Your task to perform on an android device: see creations saved in the google photos Image 0: 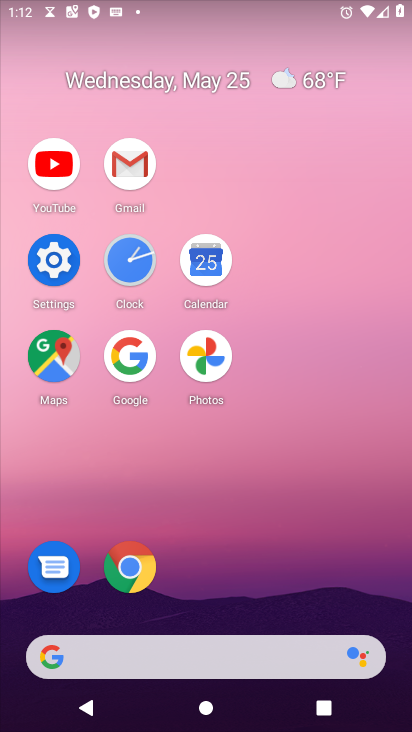
Step 0: click (207, 369)
Your task to perform on an android device: see creations saved in the google photos Image 1: 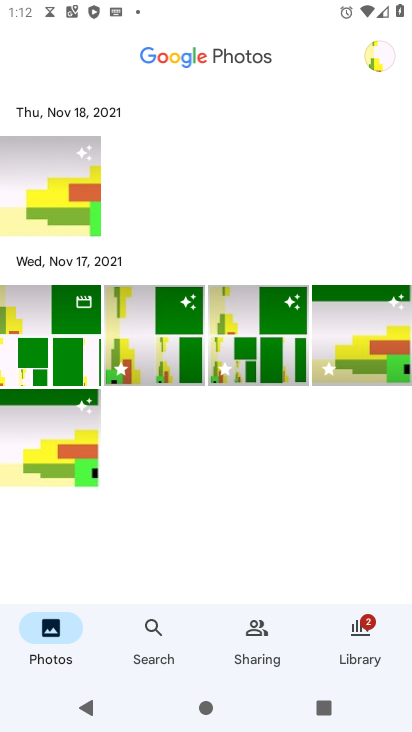
Step 1: click (259, 68)
Your task to perform on an android device: see creations saved in the google photos Image 2: 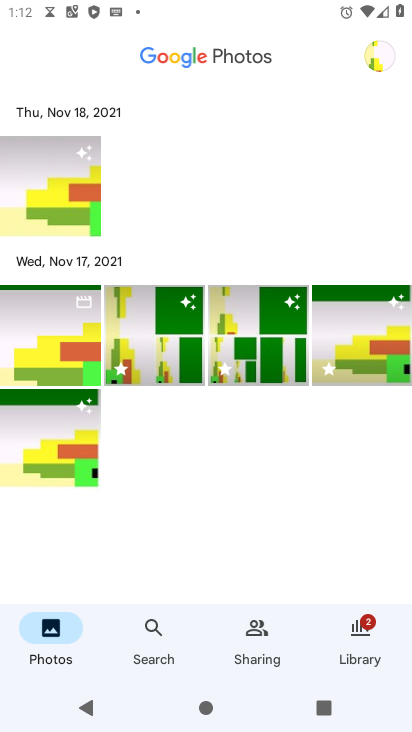
Step 2: click (142, 50)
Your task to perform on an android device: see creations saved in the google photos Image 3: 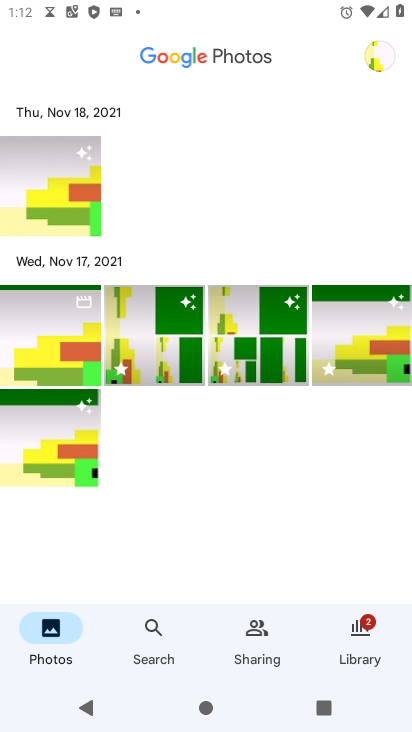
Step 3: click (232, 61)
Your task to perform on an android device: see creations saved in the google photos Image 4: 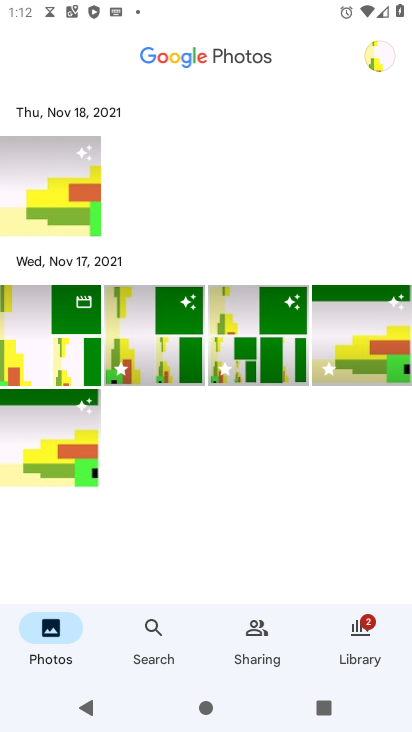
Step 4: click (172, 624)
Your task to perform on an android device: see creations saved in the google photos Image 5: 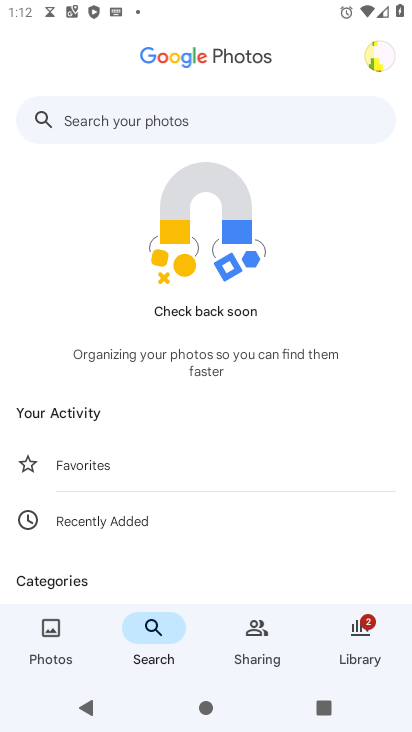
Step 5: click (140, 127)
Your task to perform on an android device: see creations saved in the google photos Image 6: 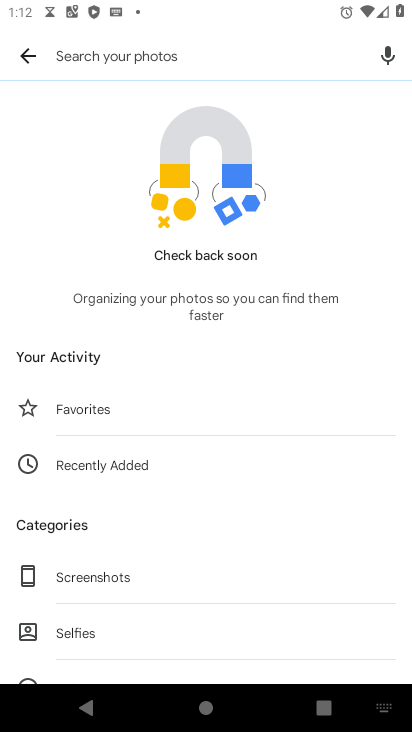
Step 6: drag from (132, 551) to (144, 269)
Your task to perform on an android device: see creations saved in the google photos Image 7: 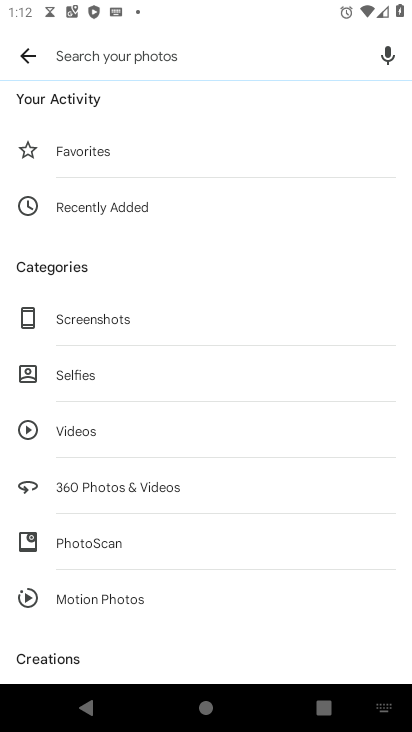
Step 7: drag from (167, 520) to (231, 248)
Your task to perform on an android device: see creations saved in the google photos Image 8: 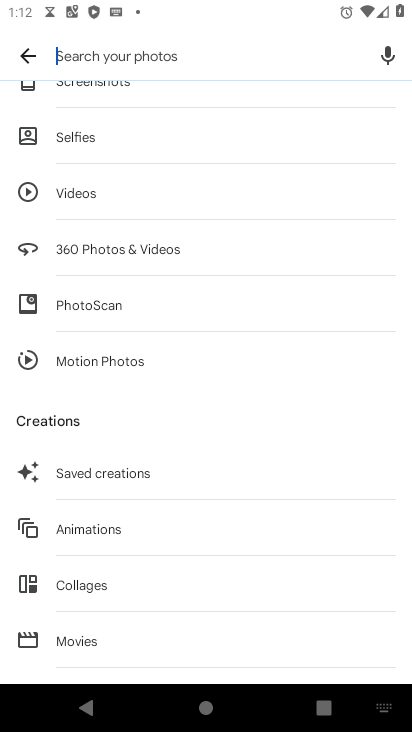
Step 8: drag from (185, 510) to (194, 263)
Your task to perform on an android device: see creations saved in the google photos Image 9: 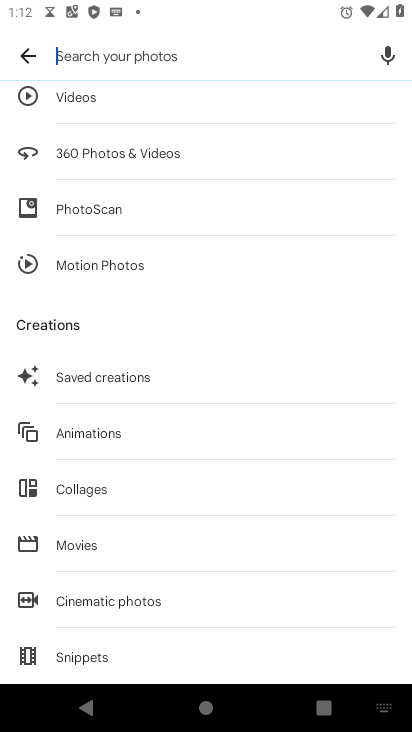
Step 9: click (186, 374)
Your task to perform on an android device: see creations saved in the google photos Image 10: 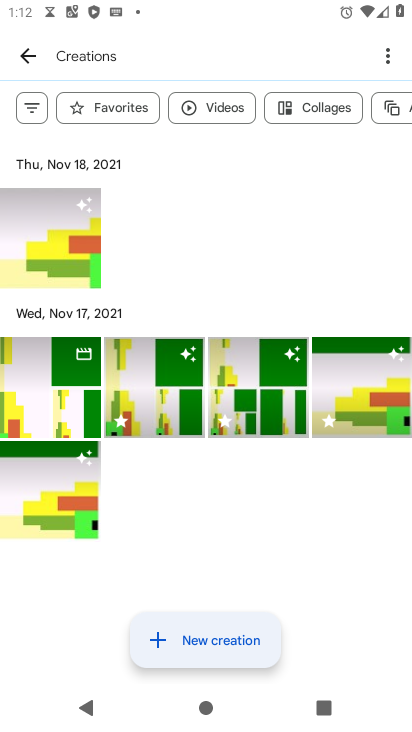
Step 10: task complete